Your task to perform on an android device: Open Chrome and go to settings Image 0: 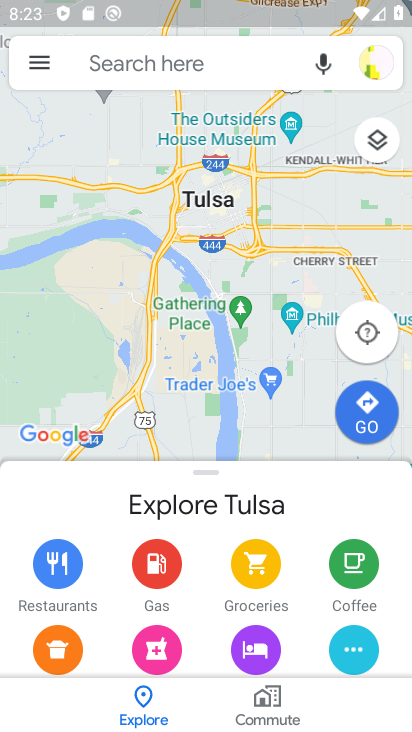
Step 0: press home button
Your task to perform on an android device: Open Chrome and go to settings Image 1: 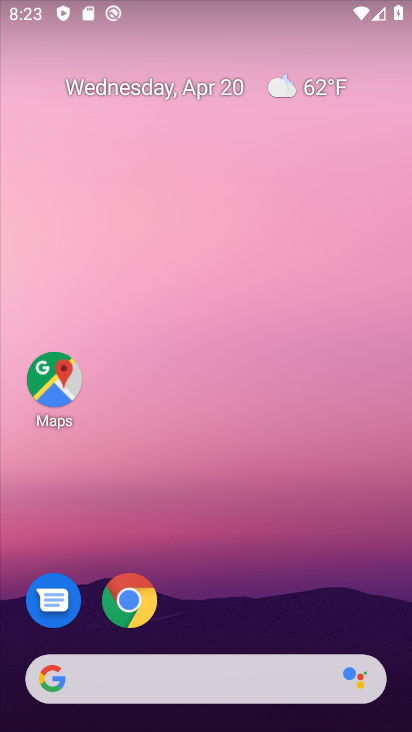
Step 1: click (126, 600)
Your task to perform on an android device: Open Chrome and go to settings Image 2: 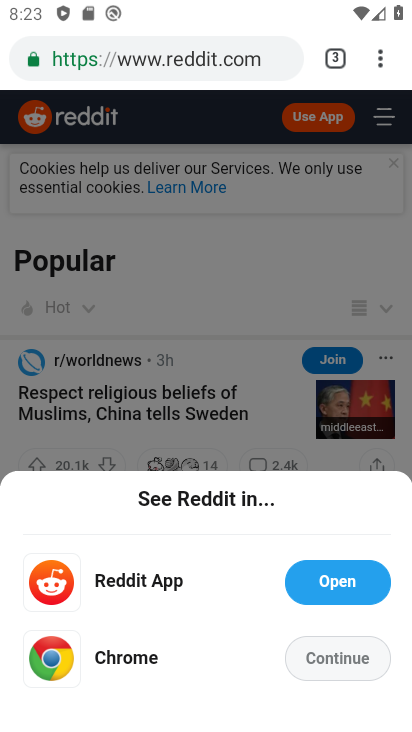
Step 2: click (379, 64)
Your task to perform on an android device: Open Chrome and go to settings Image 3: 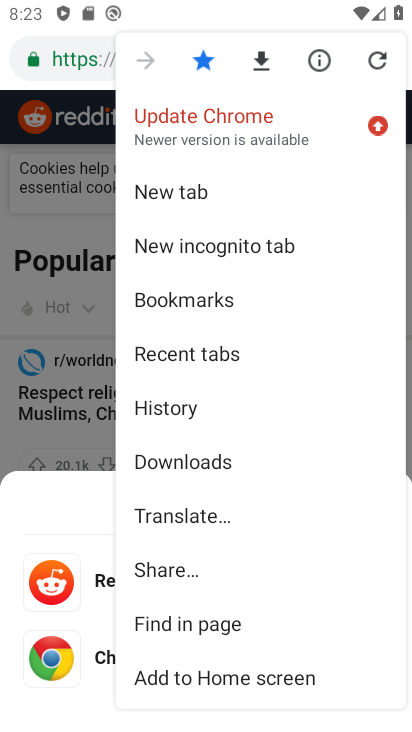
Step 3: drag from (221, 645) to (217, 229)
Your task to perform on an android device: Open Chrome and go to settings Image 4: 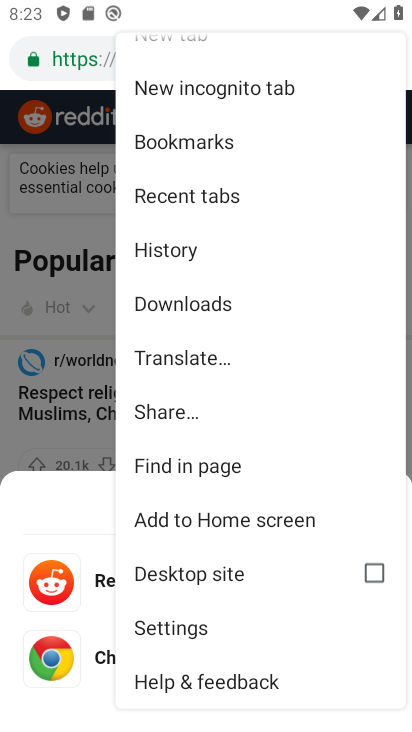
Step 4: click (178, 630)
Your task to perform on an android device: Open Chrome and go to settings Image 5: 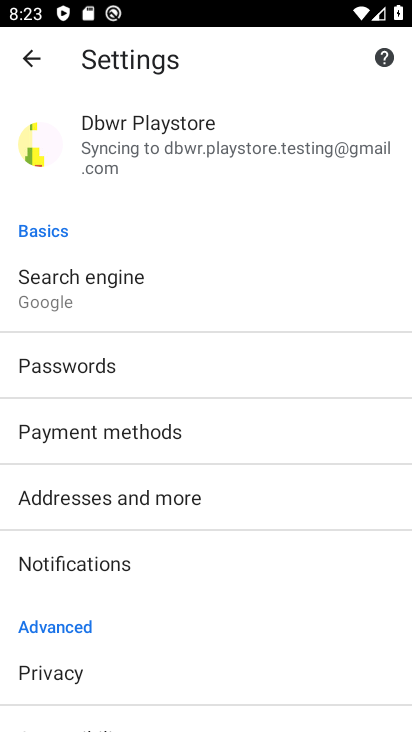
Step 5: task complete